Your task to perform on an android device: What's the weather going to be this weekend? Image 0: 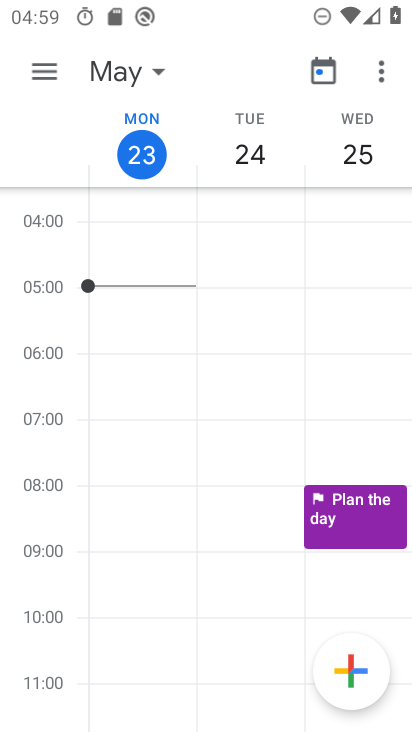
Step 0: press home button
Your task to perform on an android device: What's the weather going to be this weekend? Image 1: 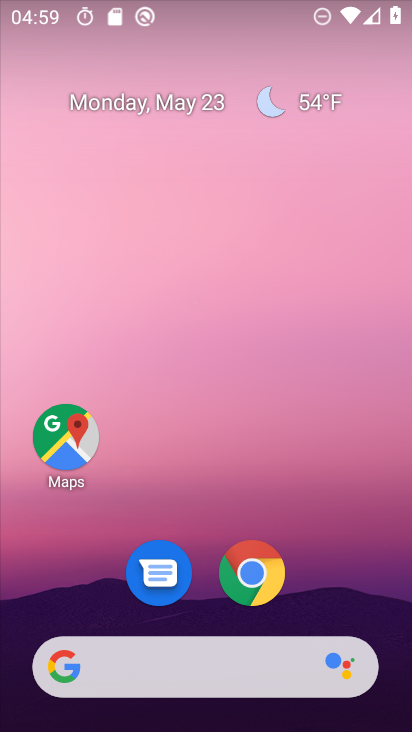
Step 1: click (307, 101)
Your task to perform on an android device: What's the weather going to be this weekend? Image 2: 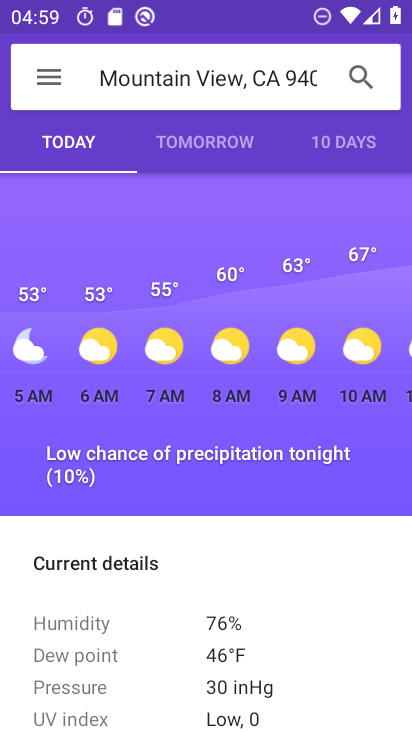
Step 2: click (342, 140)
Your task to perform on an android device: What's the weather going to be this weekend? Image 3: 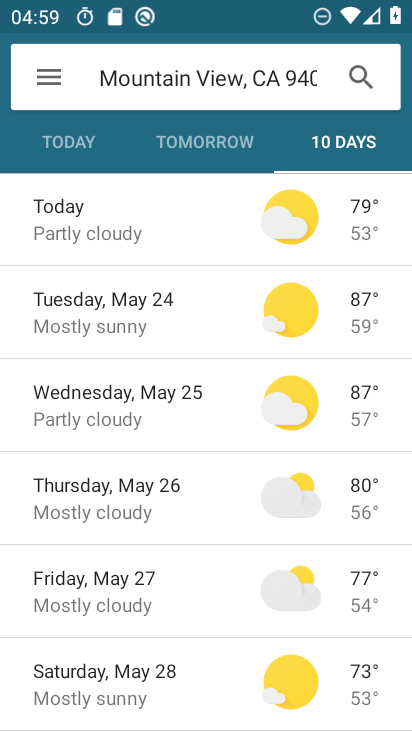
Step 3: task complete